Your task to perform on an android device: Go to privacy settings Image 0: 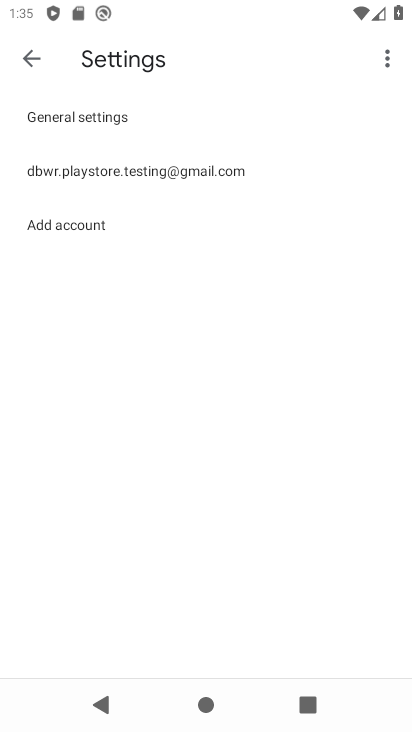
Step 0: press home button
Your task to perform on an android device: Go to privacy settings Image 1: 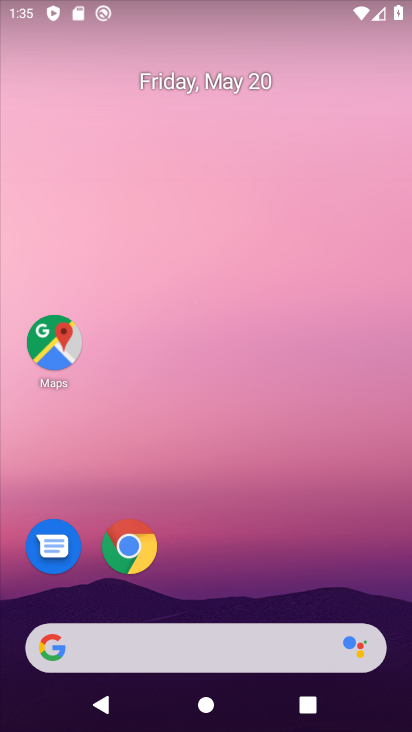
Step 1: drag from (224, 591) to (187, 209)
Your task to perform on an android device: Go to privacy settings Image 2: 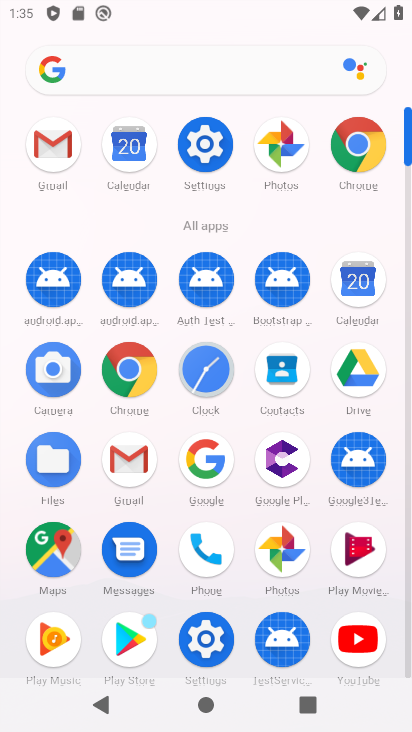
Step 2: click (222, 137)
Your task to perform on an android device: Go to privacy settings Image 3: 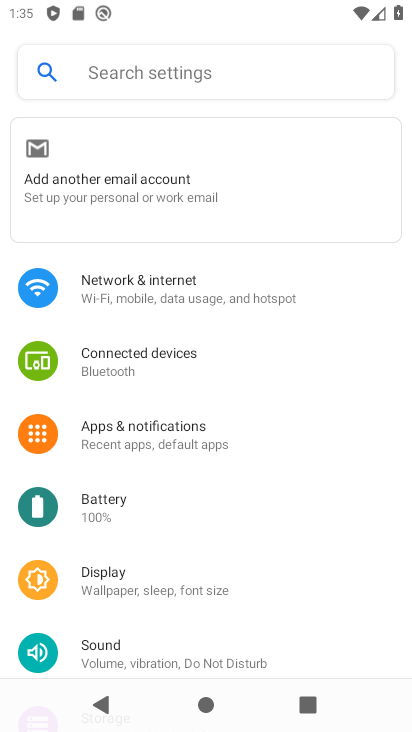
Step 3: drag from (235, 600) to (185, 169)
Your task to perform on an android device: Go to privacy settings Image 4: 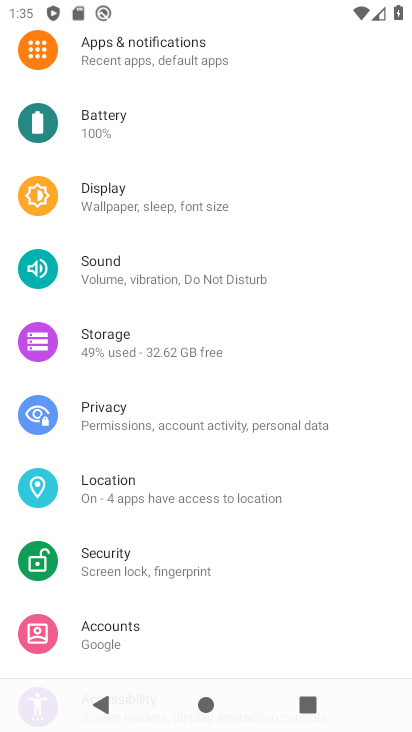
Step 4: click (220, 429)
Your task to perform on an android device: Go to privacy settings Image 5: 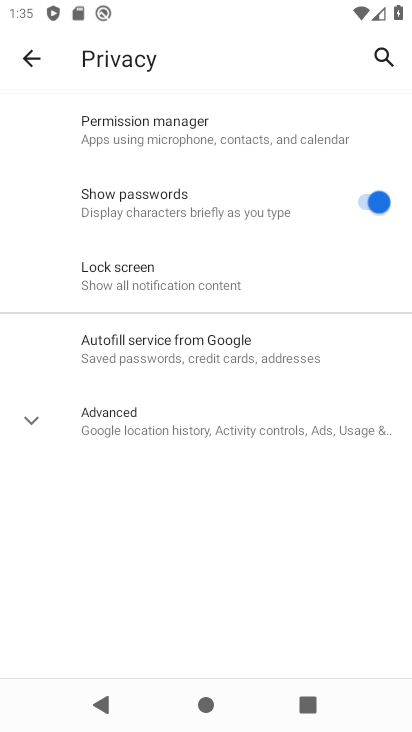
Step 5: task complete